Your task to perform on an android device: change your default location settings in chrome Image 0: 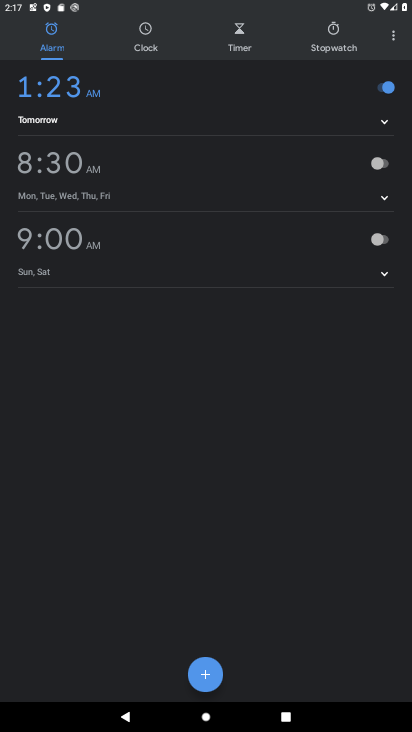
Step 0: press home button
Your task to perform on an android device: change your default location settings in chrome Image 1: 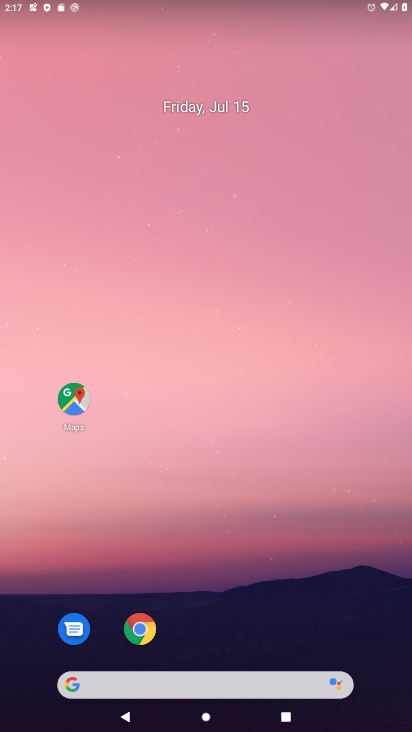
Step 1: drag from (339, 572) to (315, 167)
Your task to perform on an android device: change your default location settings in chrome Image 2: 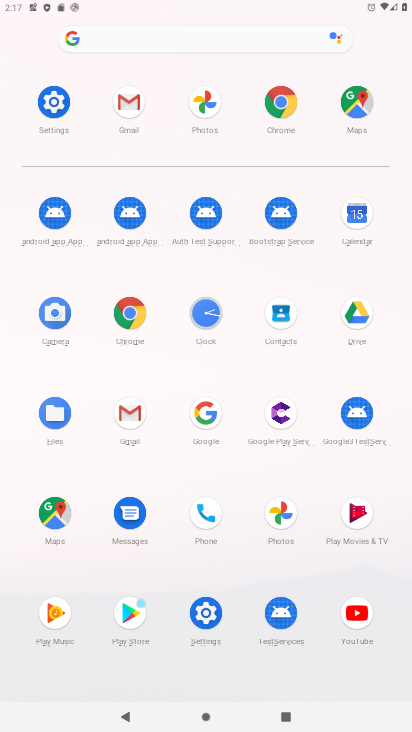
Step 2: click (127, 312)
Your task to perform on an android device: change your default location settings in chrome Image 3: 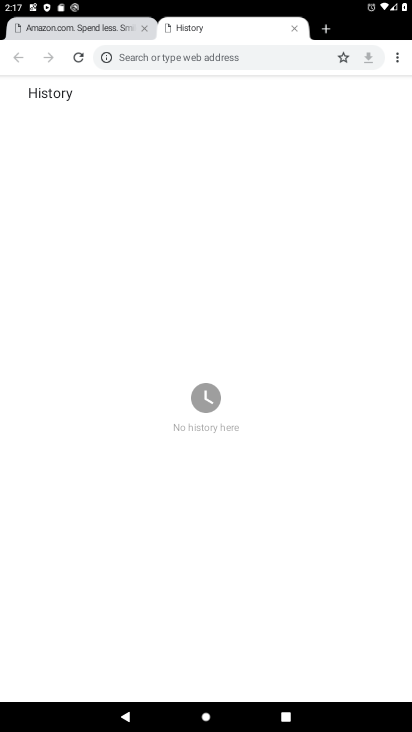
Step 3: drag from (400, 51) to (288, 295)
Your task to perform on an android device: change your default location settings in chrome Image 4: 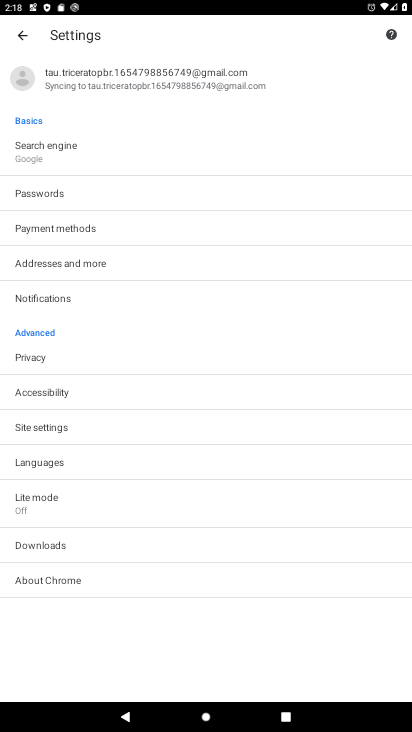
Step 4: click (67, 433)
Your task to perform on an android device: change your default location settings in chrome Image 5: 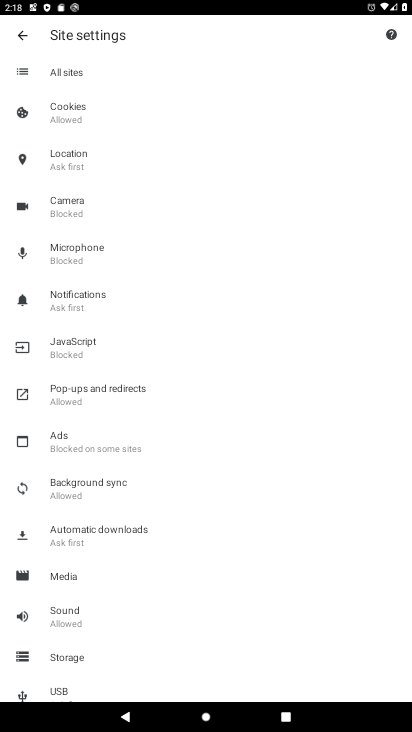
Step 5: click (86, 158)
Your task to perform on an android device: change your default location settings in chrome Image 6: 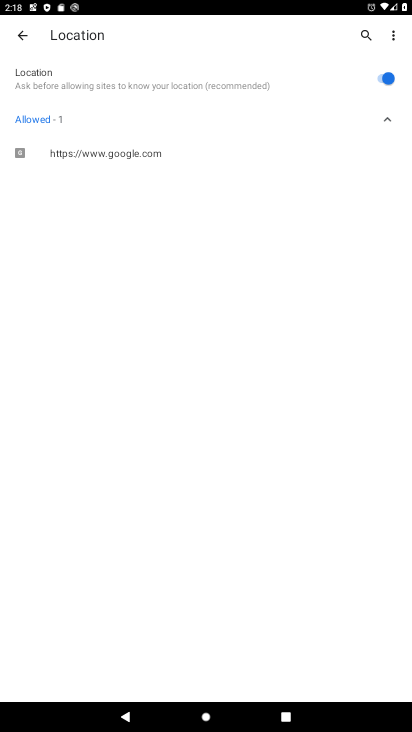
Step 6: click (381, 84)
Your task to perform on an android device: change your default location settings in chrome Image 7: 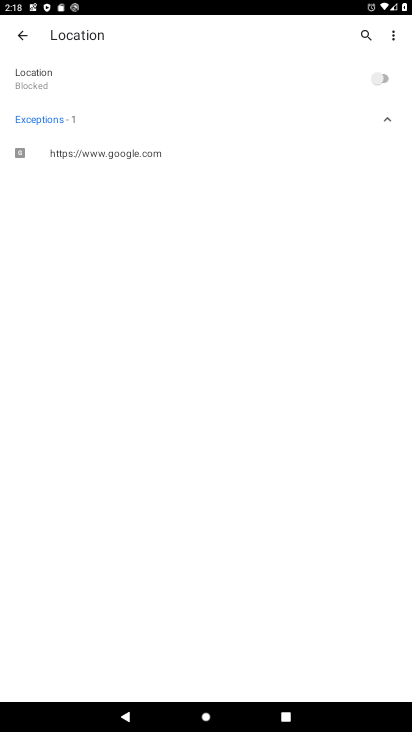
Step 7: task complete